Your task to perform on an android device: Open Yahoo.com Image 0: 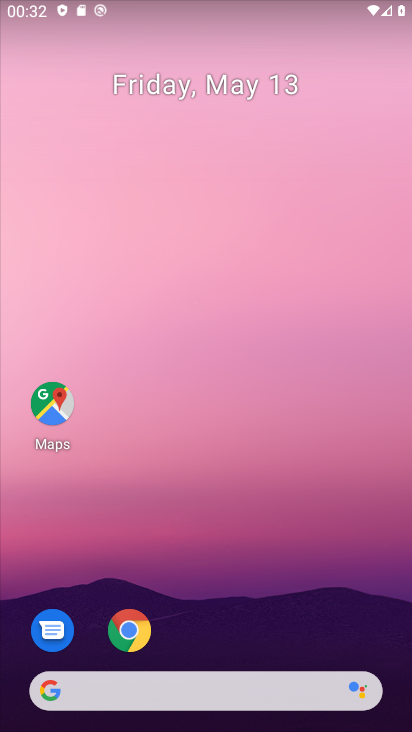
Step 0: drag from (260, 697) to (315, 226)
Your task to perform on an android device: Open Yahoo.com Image 1: 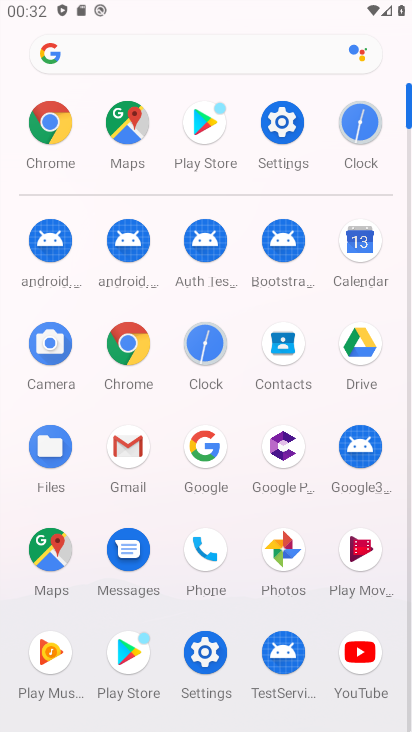
Step 1: click (65, 131)
Your task to perform on an android device: Open Yahoo.com Image 2: 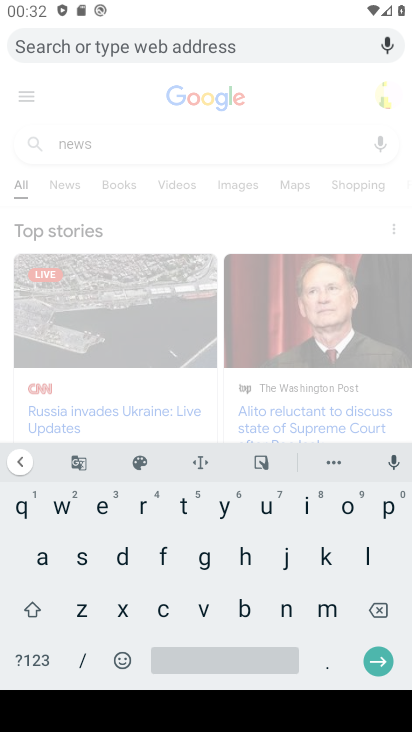
Step 2: click (215, 503)
Your task to perform on an android device: Open Yahoo.com Image 3: 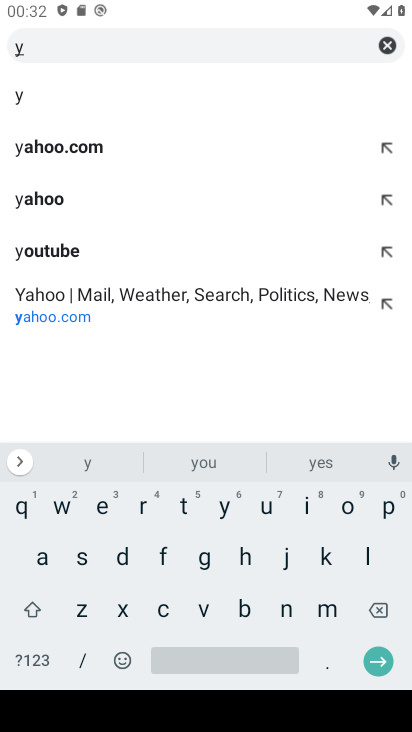
Step 3: click (69, 153)
Your task to perform on an android device: Open Yahoo.com Image 4: 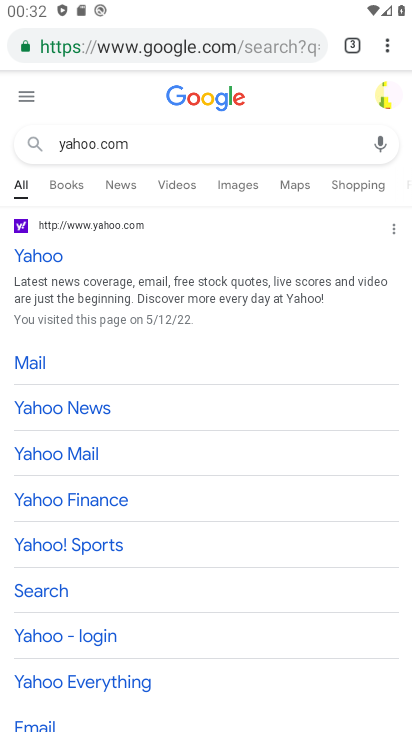
Step 4: click (39, 260)
Your task to perform on an android device: Open Yahoo.com Image 5: 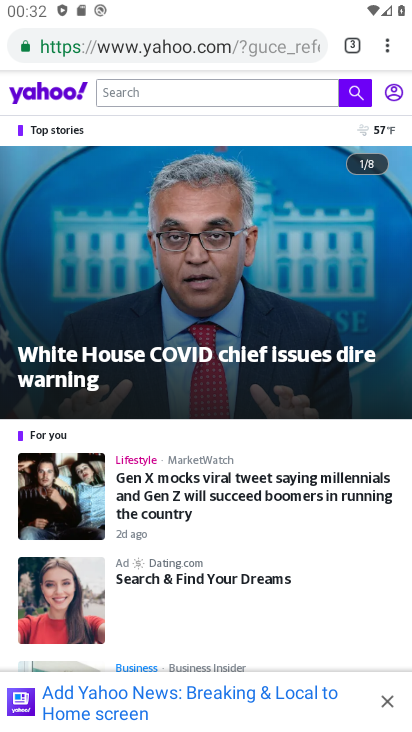
Step 5: task complete